Your task to perform on an android device: Open Android settings Image 0: 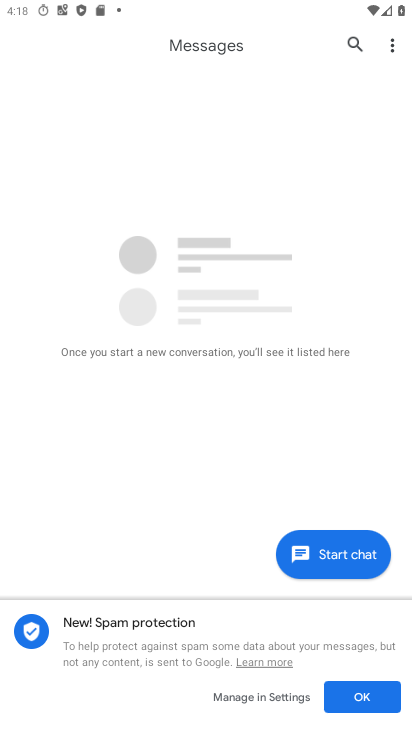
Step 0: press home button
Your task to perform on an android device: Open Android settings Image 1: 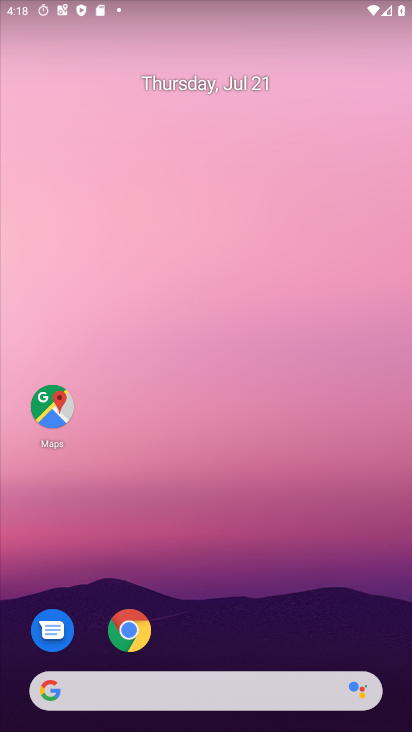
Step 1: drag from (224, 690) to (261, 194)
Your task to perform on an android device: Open Android settings Image 2: 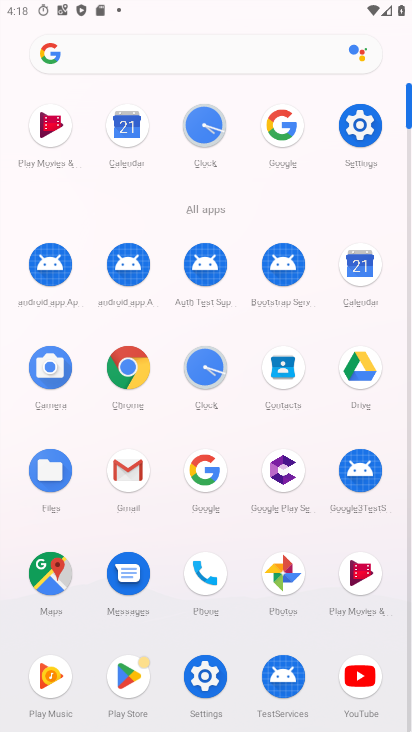
Step 2: click (357, 125)
Your task to perform on an android device: Open Android settings Image 3: 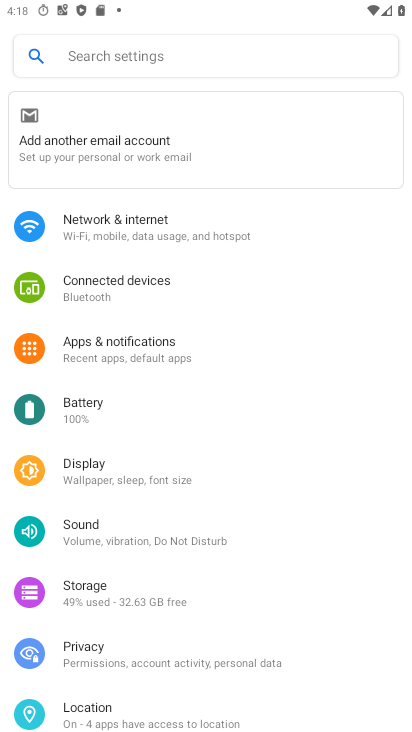
Step 3: task complete